Your task to perform on an android device: Do I have any events this weekend? Image 0: 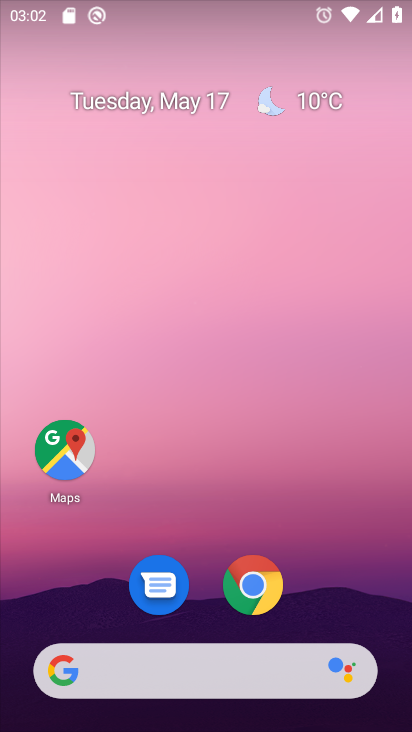
Step 0: drag from (221, 461) to (277, 41)
Your task to perform on an android device: Do I have any events this weekend? Image 1: 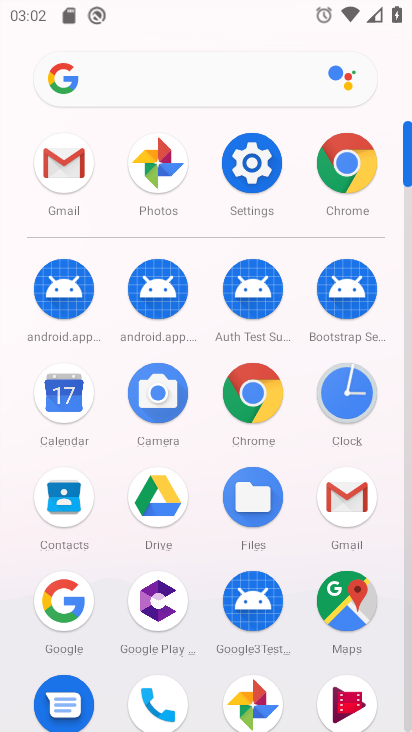
Step 1: click (66, 385)
Your task to perform on an android device: Do I have any events this weekend? Image 2: 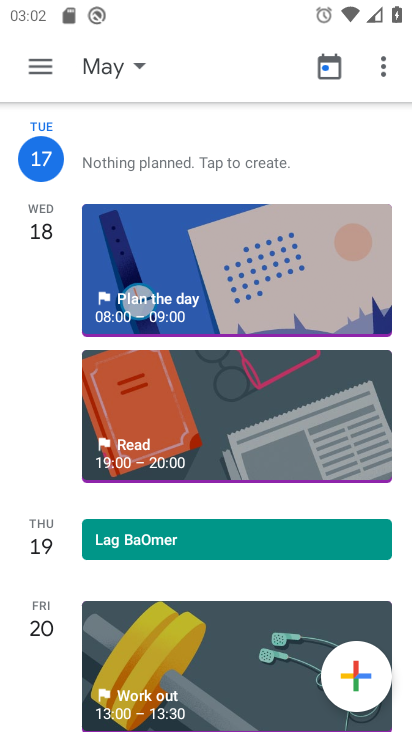
Step 2: task complete